Your task to perform on an android device: Open Wikipedia Image 0: 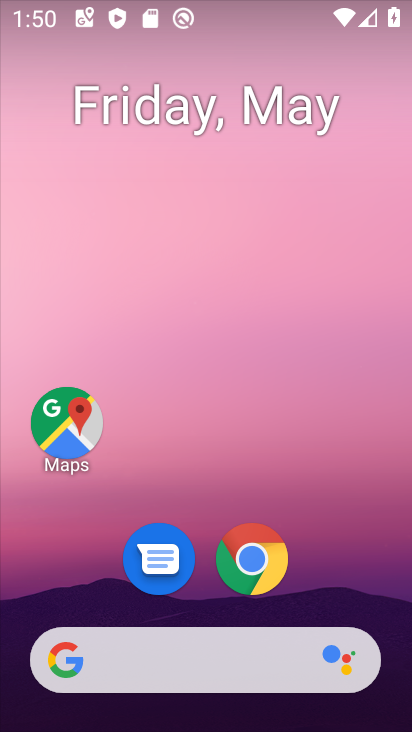
Step 0: click (251, 554)
Your task to perform on an android device: Open Wikipedia Image 1: 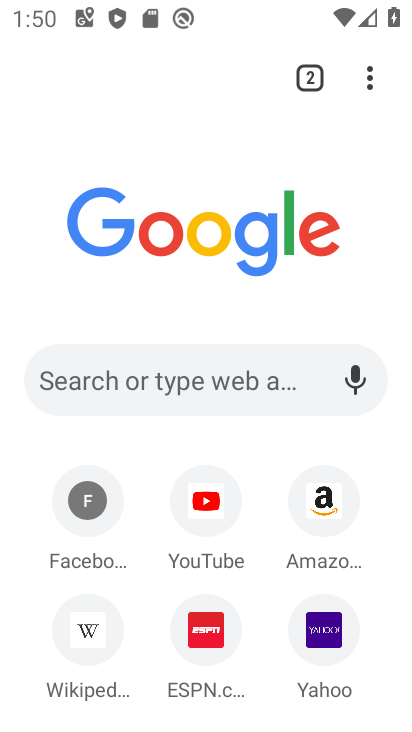
Step 1: click (76, 627)
Your task to perform on an android device: Open Wikipedia Image 2: 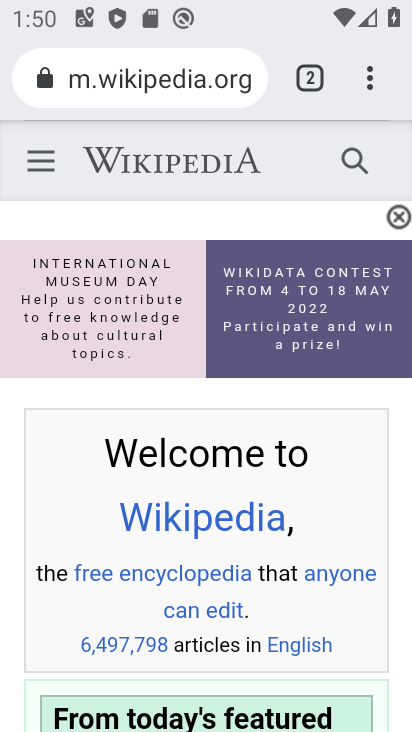
Step 2: task complete